Your task to perform on an android device: empty trash in google photos Image 0: 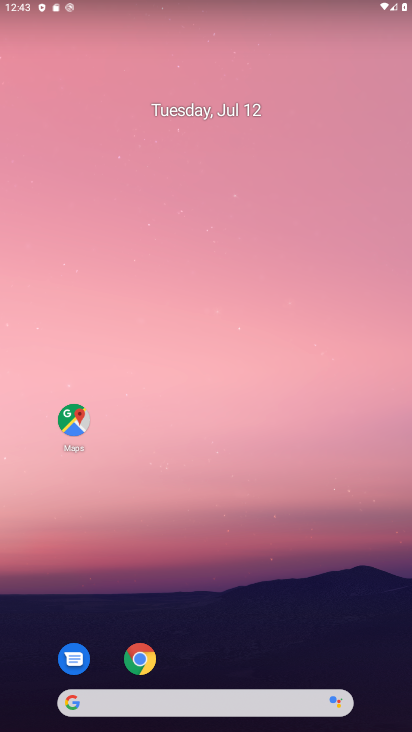
Step 0: drag from (176, 588) to (226, 281)
Your task to perform on an android device: empty trash in google photos Image 1: 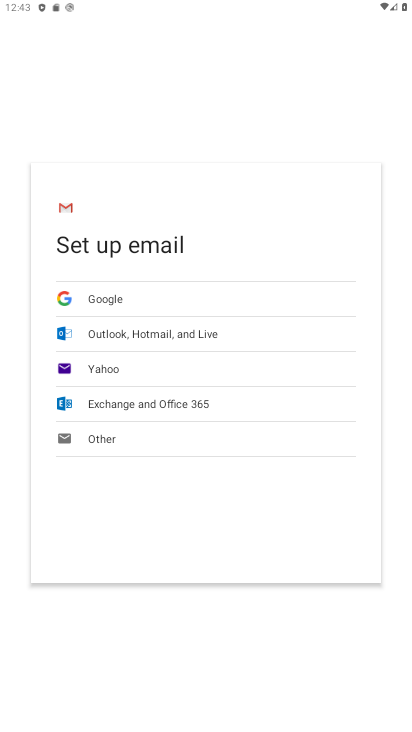
Step 1: press home button
Your task to perform on an android device: empty trash in google photos Image 2: 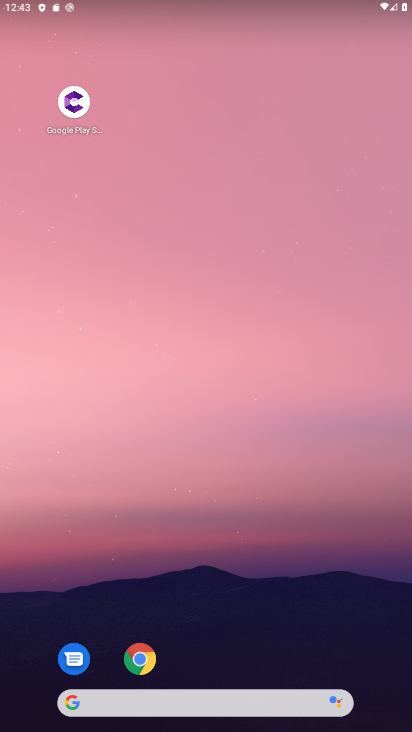
Step 2: drag from (211, 639) to (410, 712)
Your task to perform on an android device: empty trash in google photos Image 3: 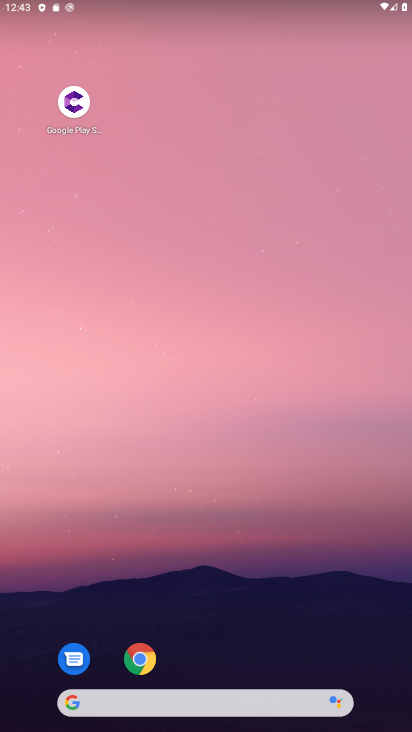
Step 3: drag from (246, 582) to (339, 48)
Your task to perform on an android device: empty trash in google photos Image 4: 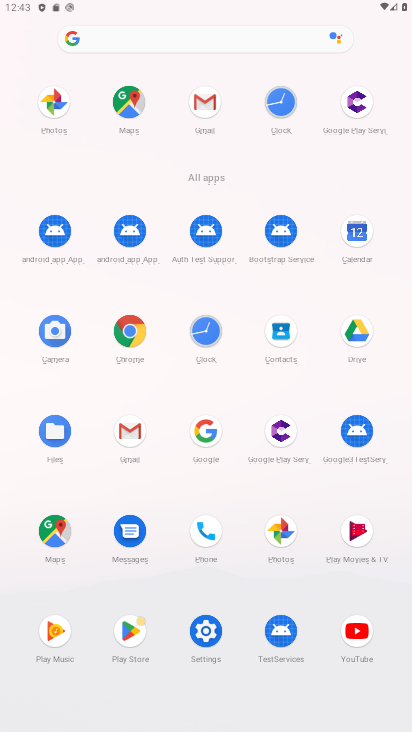
Step 4: click (278, 524)
Your task to perform on an android device: empty trash in google photos Image 5: 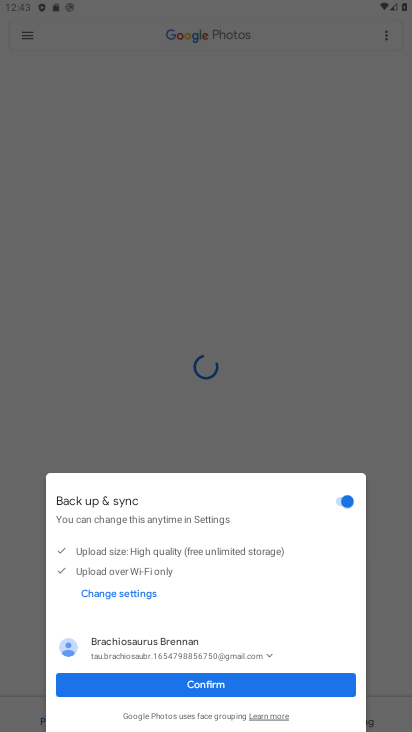
Step 5: click (193, 675)
Your task to perform on an android device: empty trash in google photos Image 6: 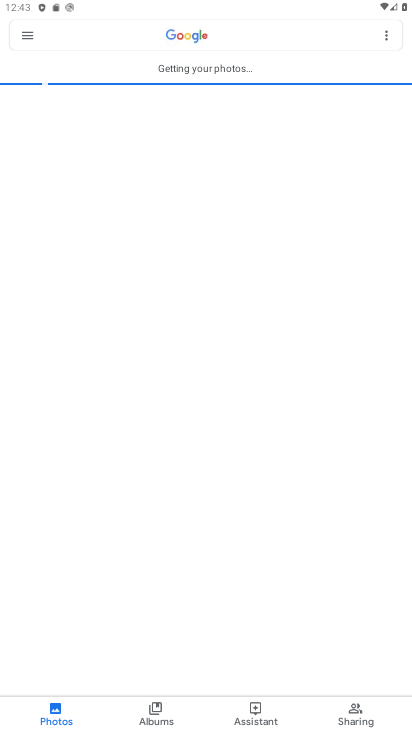
Step 6: click (30, 37)
Your task to perform on an android device: empty trash in google photos Image 7: 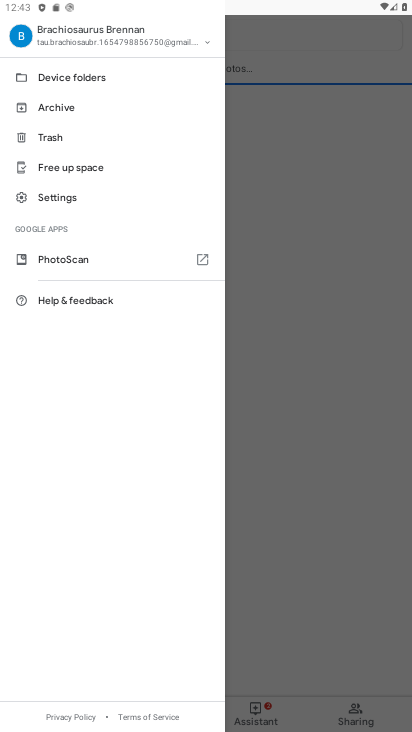
Step 7: click (72, 128)
Your task to perform on an android device: empty trash in google photos Image 8: 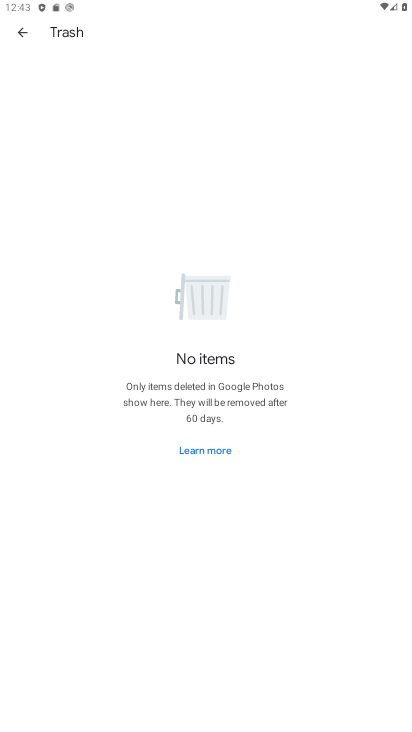
Step 8: task complete